Your task to perform on an android device: Clear all items from cart on ebay. Search for logitech g pro on ebay, select the first entry, and add it to the cart. Image 0: 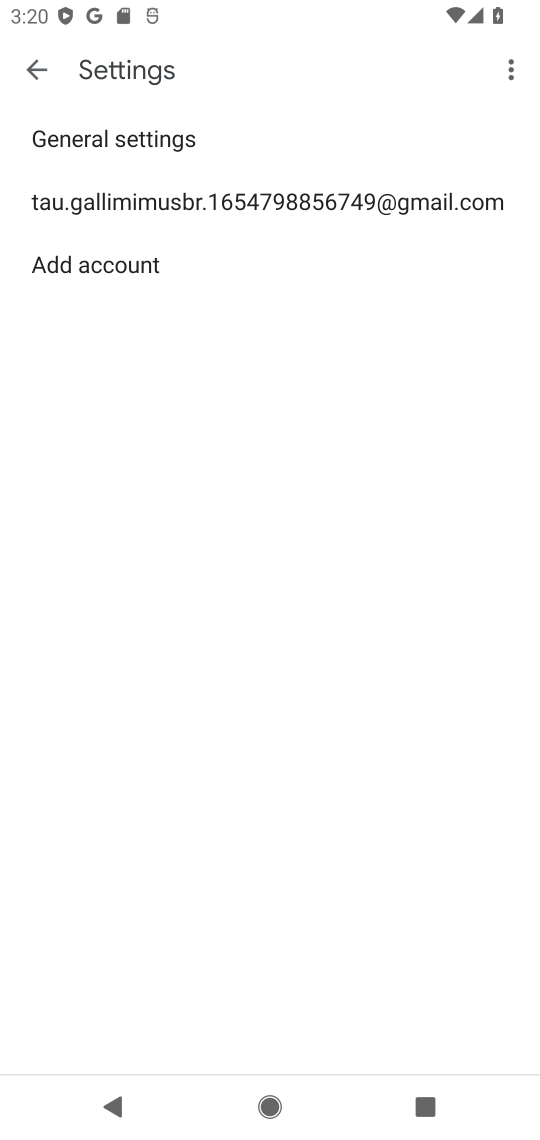
Step 0: press home button
Your task to perform on an android device: Clear all items from cart on ebay. Search for logitech g pro on ebay, select the first entry, and add it to the cart. Image 1: 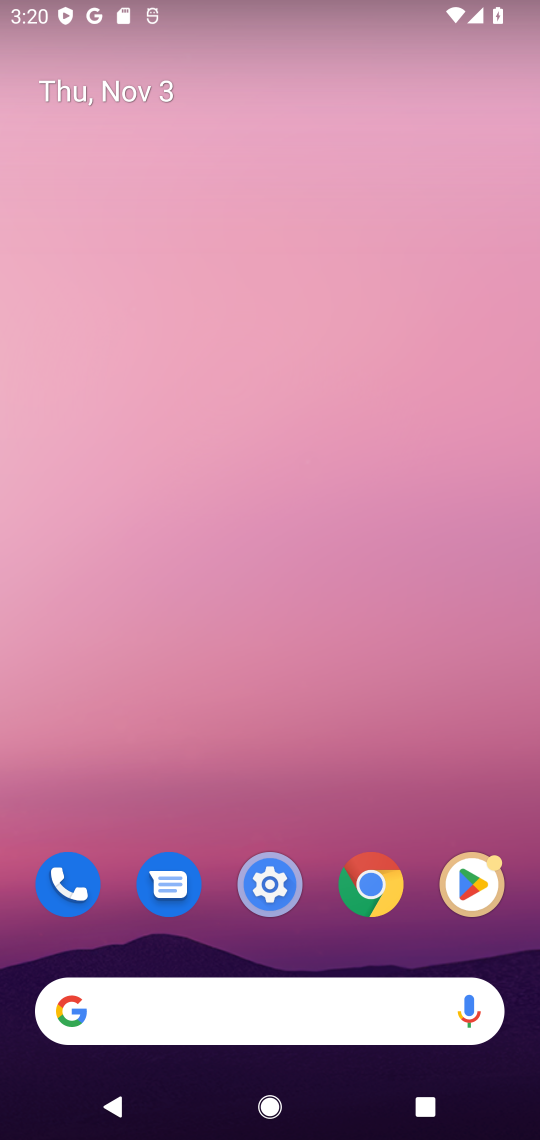
Step 1: click (96, 1006)
Your task to perform on an android device: Clear all items from cart on ebay. Search for logitech g pro on ebay, select the first entry, and add it to the cart. Image 2: 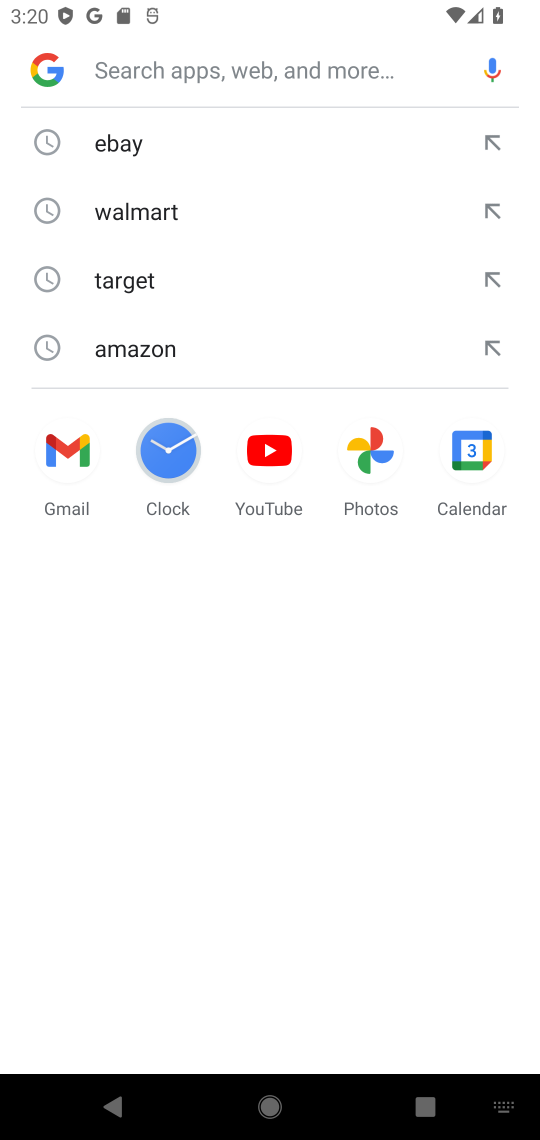
Step 2: click (139, 138)
Your task to perform on an android device: Clear all items from cart on ebay. Search for logitech g pro on ebay, select the first entry, and add it to the cart. Image 3: 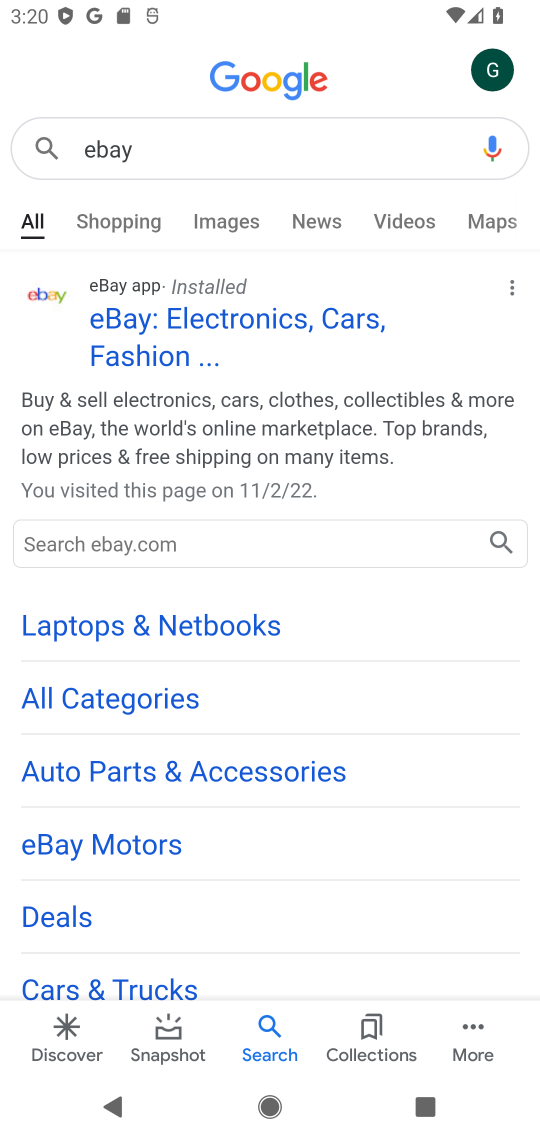
Step 3: click (135, 706)
Your task to perform on an android device: Clear all items from cart on ebay. Search for logitech g pro on ebay, select the first entry, and add it to the cart. Image 4: 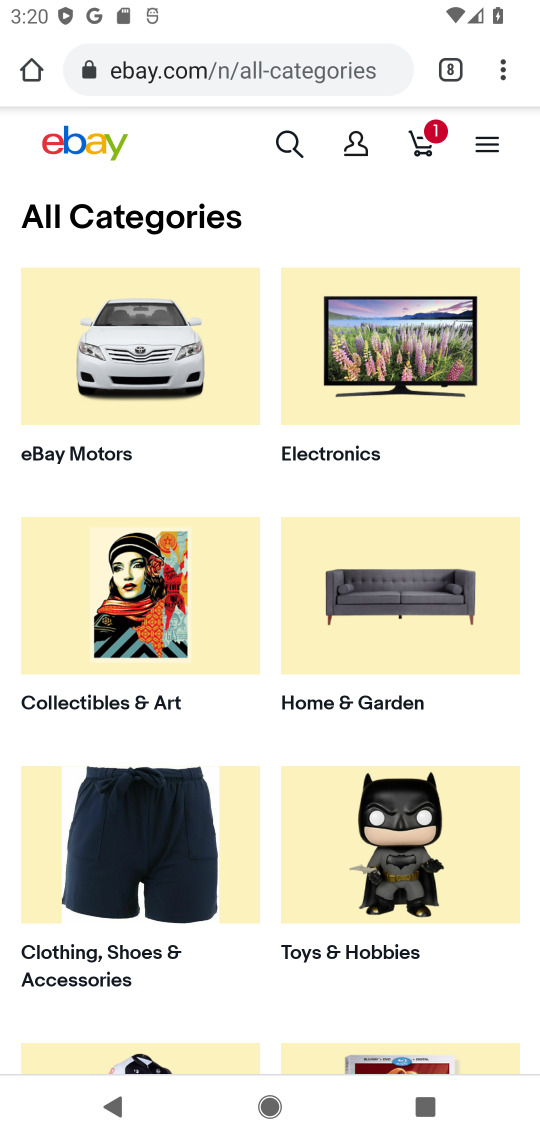
Step 4: click (427, 136)
Your task to perform on an android device: Clear all items from cart on ebay. Search for logitech g pro on ebay, select the first entry, and add it to the cart. Image 5: 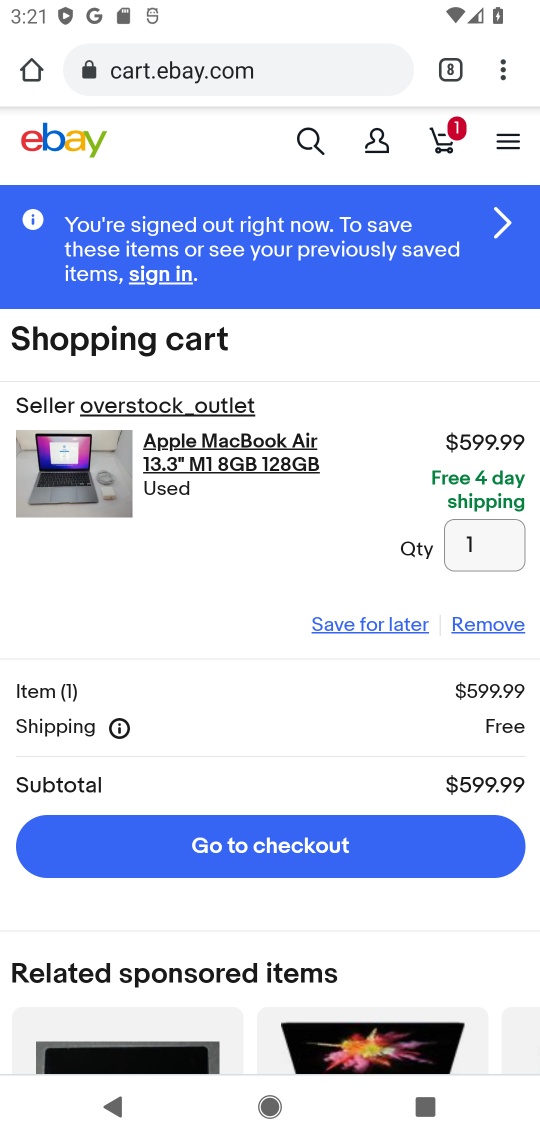
Step 5: click (502, 623)
Your task to perform on an android device: Clear all items from cart on ebay. Search for logitech g pro on ebay, select the first entry, and add it to the cart. Image 6: 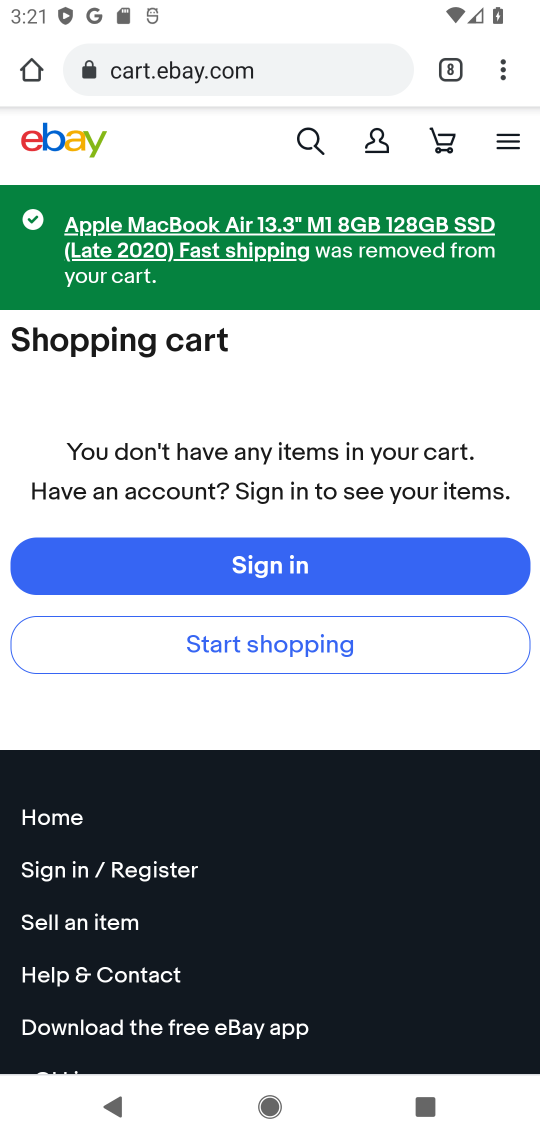
Step 6: click (309, 135)
Your task to perform on an android device: Clear all items from cart on ebay. Search for logitech g pro on ebay, select the first entry, and add it to the cart. Image 7: 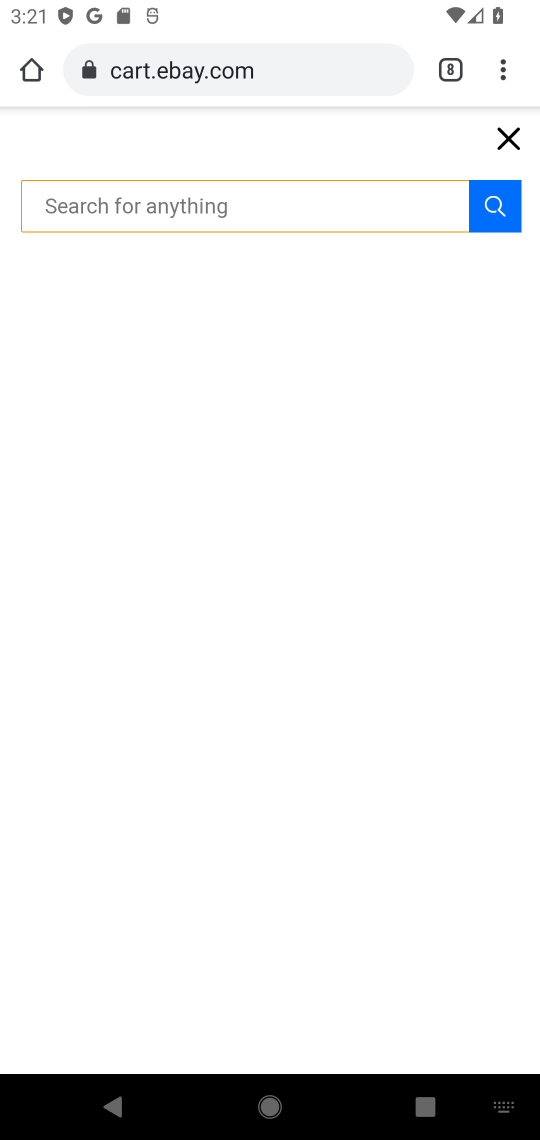
Step 7: type "logitech g pro "
Your task to perform on an android device: Clear all items from cart on ebay. Search for logitech g pro on ebay, select the first entry, and add it to the cart. Image 8: 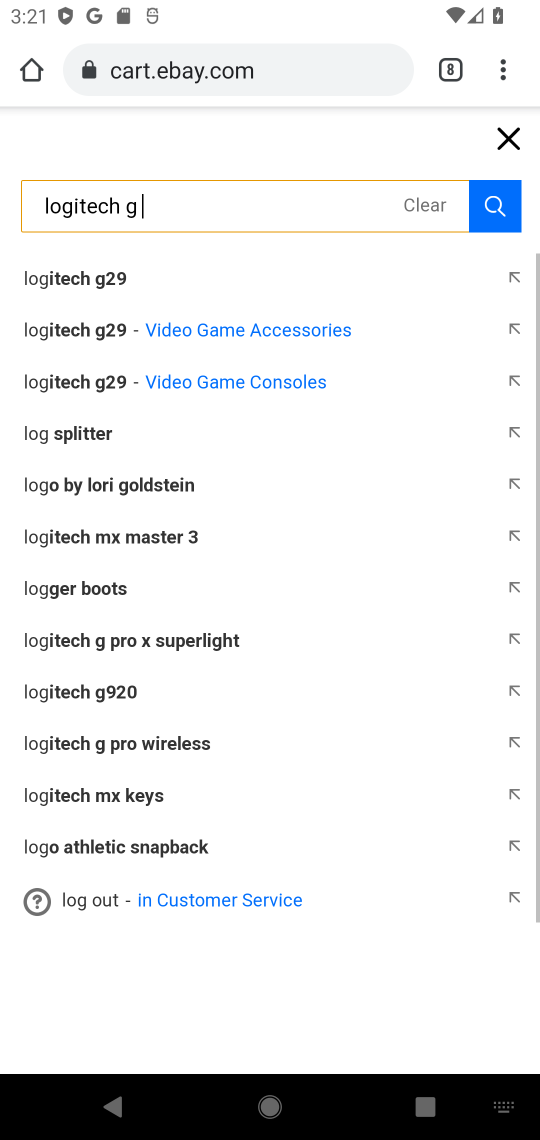
Step 8: press enter
Your task to perform on an android device: Clear all items from cart on ebay. Search for logitech g pro on ebay, select the first entry, and add it to the cart. Image 9: 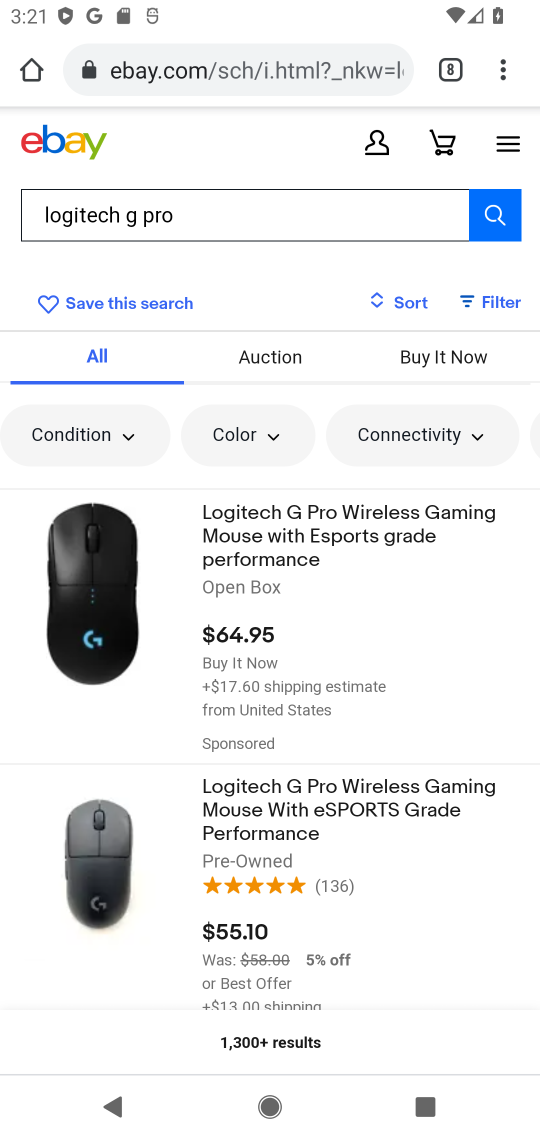
Step 9: click (267, 529)
Your task to perform on an android device: Clear all items from cart on ebay. Search for logitech g pro on ebay, select the first entry, and add it to the cart. Image 10: 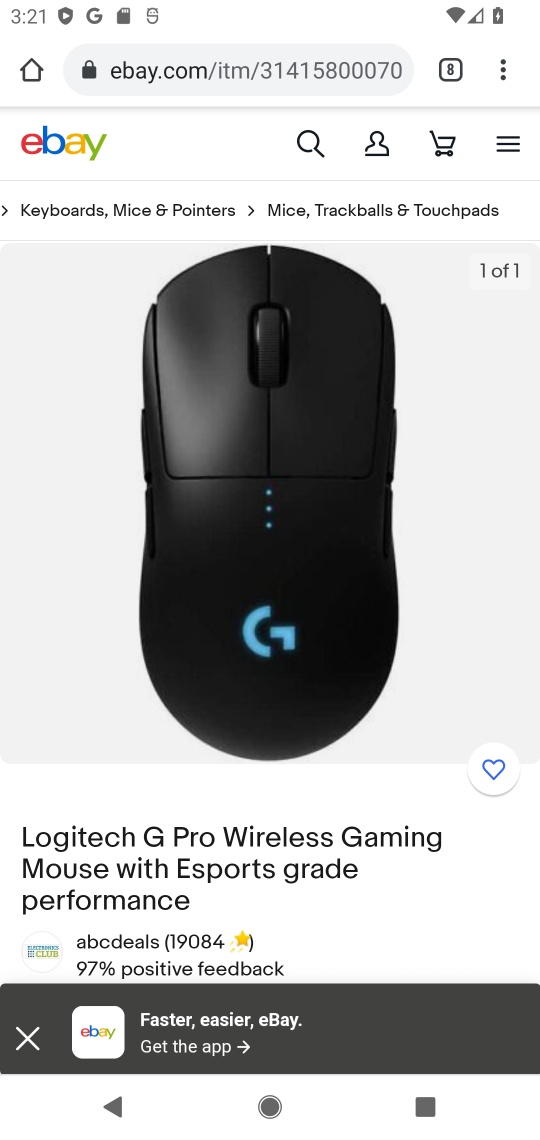
Step 10: drag from (325, 864) to (335, 508)
Your task to perform on an android device: Clear all items from cart on ebay. Search for logitech g pro on ebay, select the first entry, and add it to the cart. Image 11: 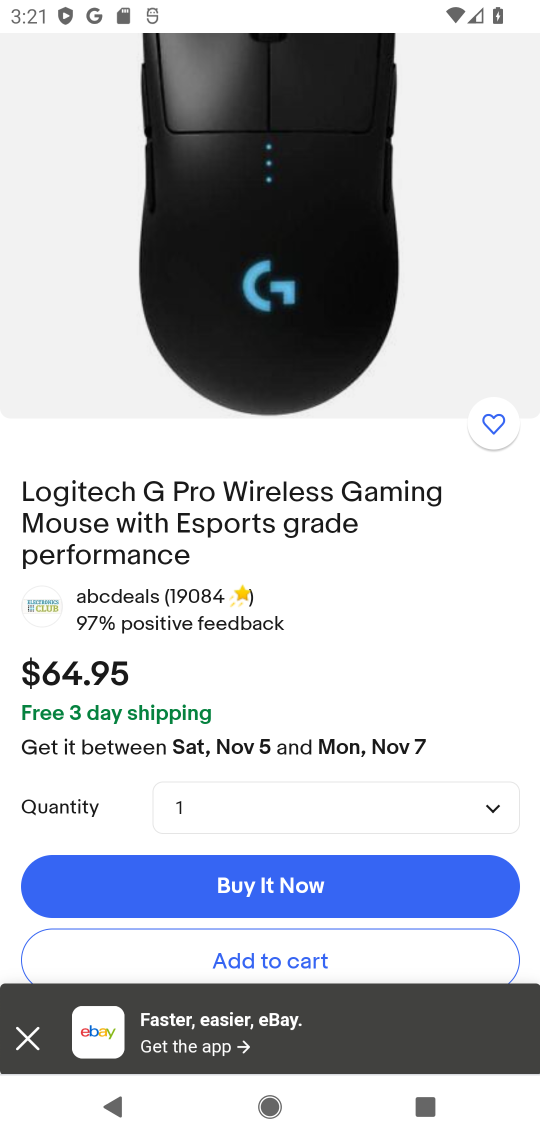
Step 11: drag from (327, 768) to (362, 418)
Your task to perform on an android device: Clear all items from cart on ebay. Search for logitech g pro on ebay, select the first entry, and add it to the cart. Image 12: 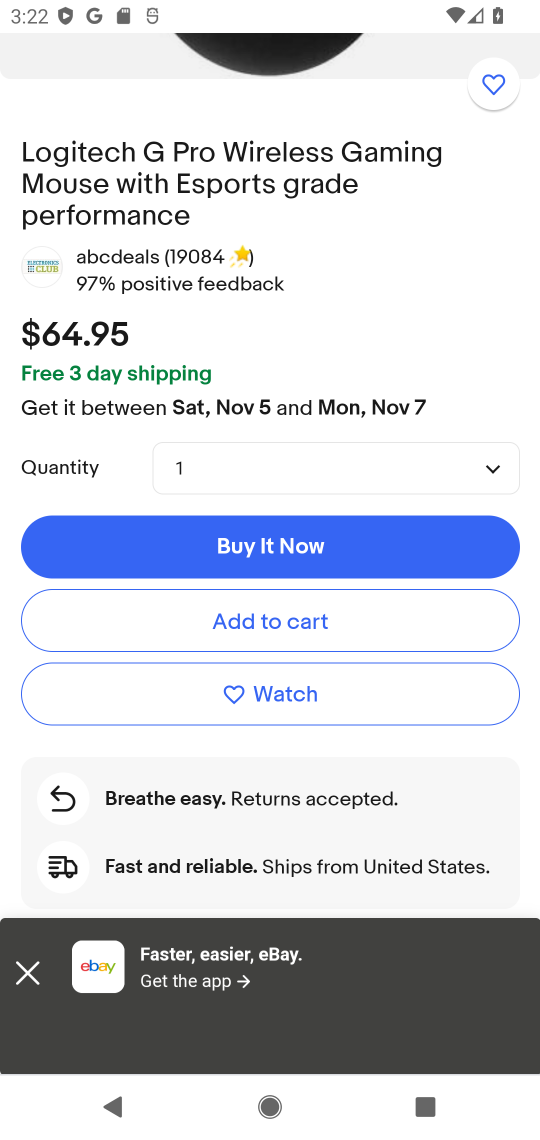
Step 12: click (239, 621)
Your task to perform on an android device: Clear all items from cart on ebay. Search for logitech g pro on ebay, select the first entry, and add it to the cart. Image 13: 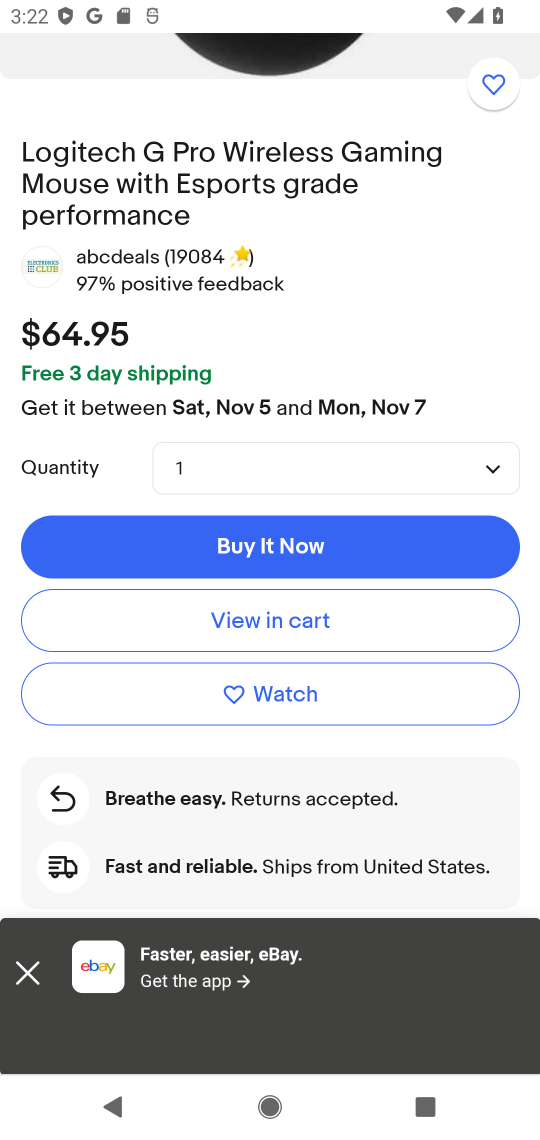
Step 13: task complete